Your task to perform on an android device: Go to battery settings Image 0: 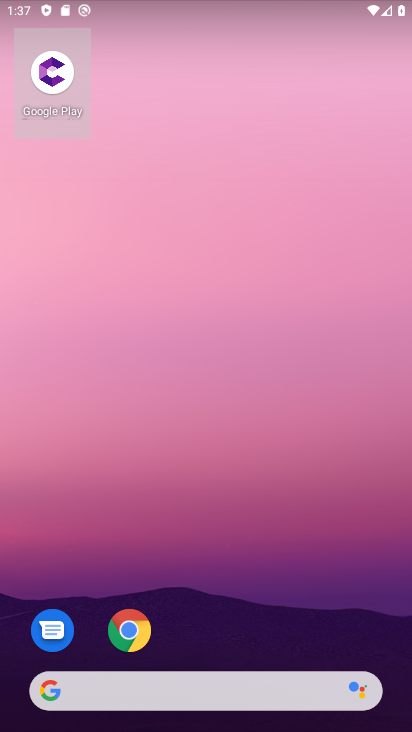
Step 0: drag from (187, 651) to (179, 119)
Your task to perform on an android device: Go to battery settings Image 1: 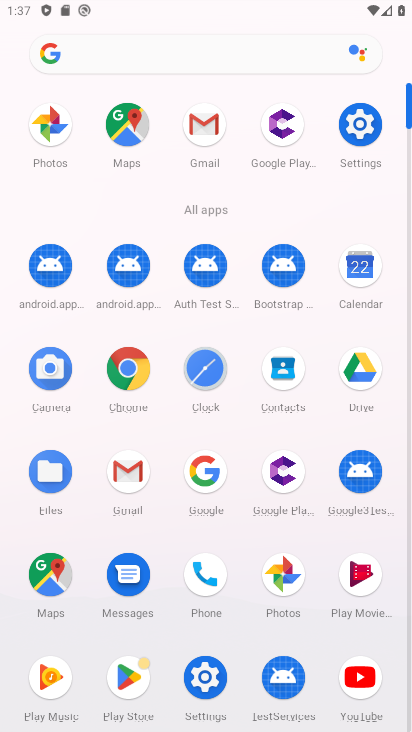
Step 1: click (362, 125)
Your task to perform on an android device: Go to battery settings Image 2: 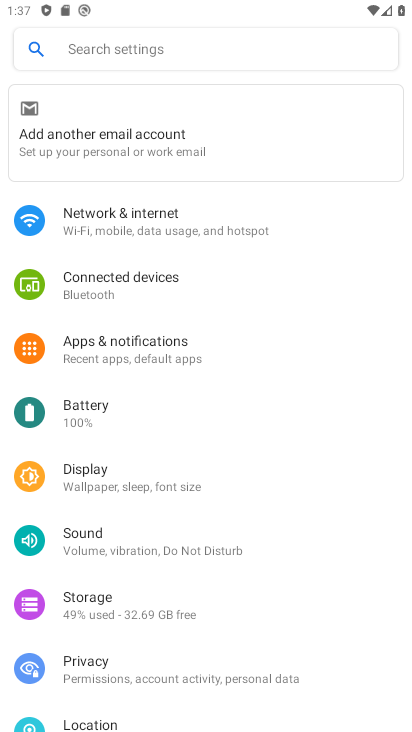
Step 2: click (105, 425)
Your task to perform on an android device: Go to battery settings Image 3: 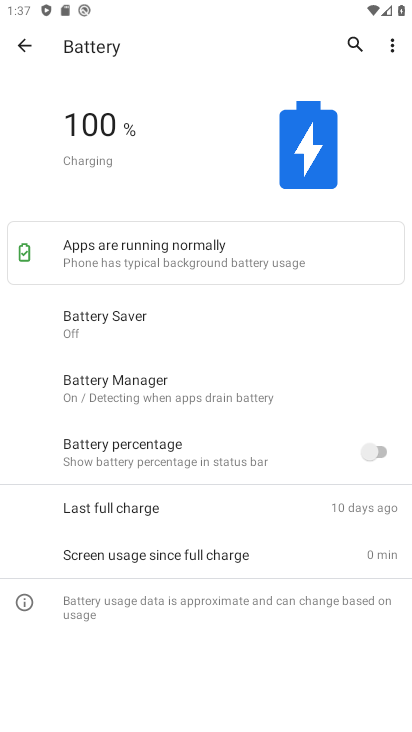
Step 3: task complete